Your task to perform on an android device: turn off location history Image 0: 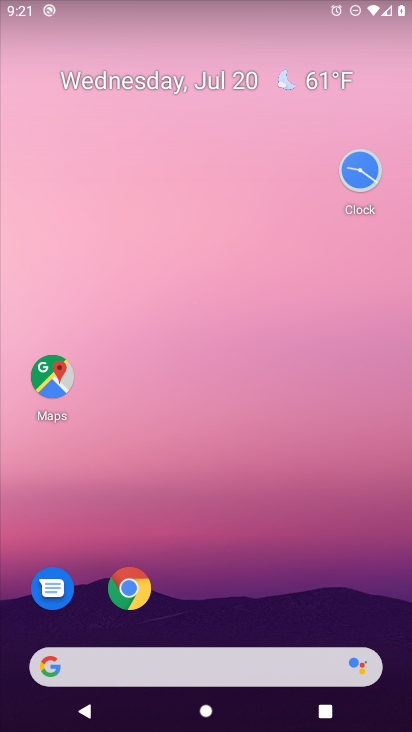
Step 0: drag from (85, 650) to (384, 96)
Your task to perform on an android device: turn off location history Image 1: 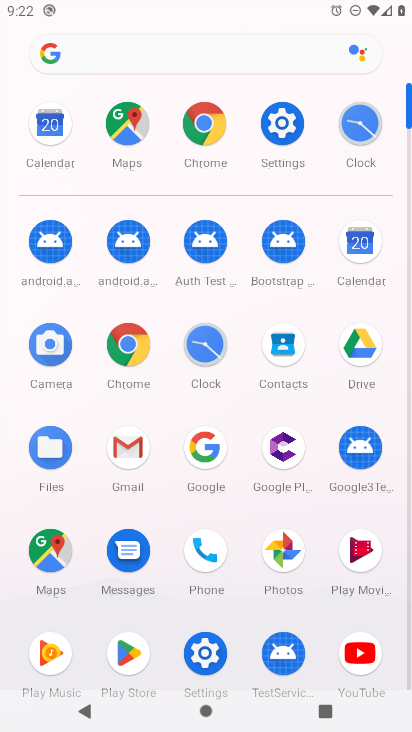
Step 1: click (191, 655)
Your task to perform on an android device: turn off location history Image 2: 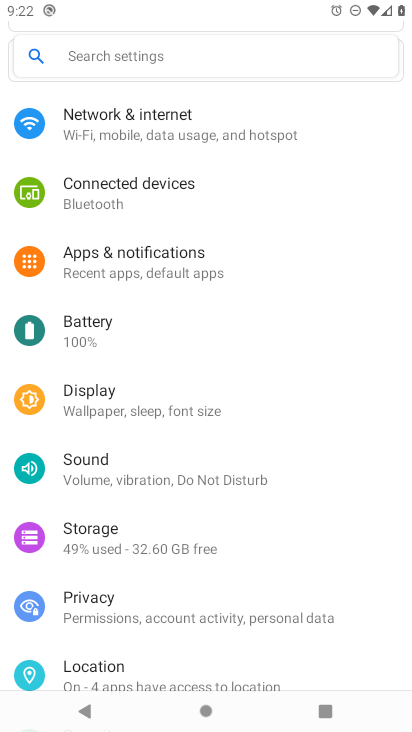
Step 2: click (104, 661)
Your task to perform on an android device: turn off location history Image 3: 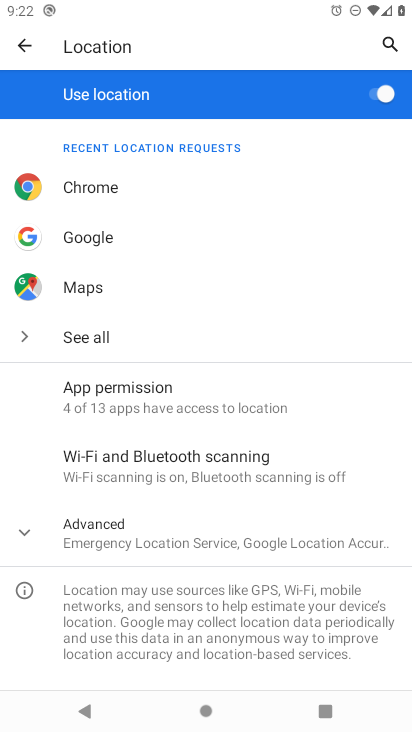
Step 3: click (115, 550)
Your task to perform on an android device: turn off location history Image 4: 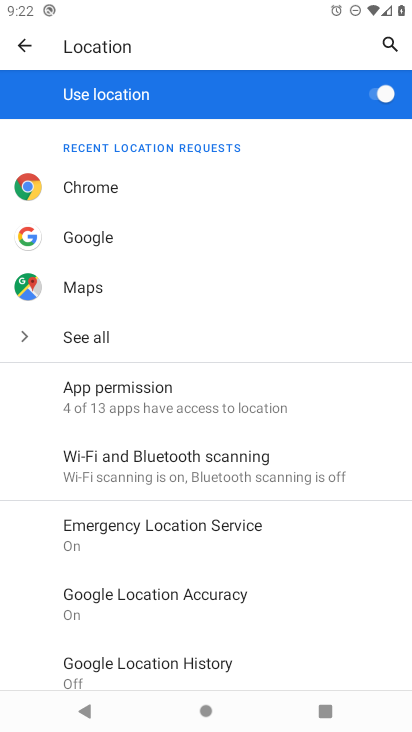
Step 4: click (143, 663)
Your task to perform on an android device: turn off location history Image 5: 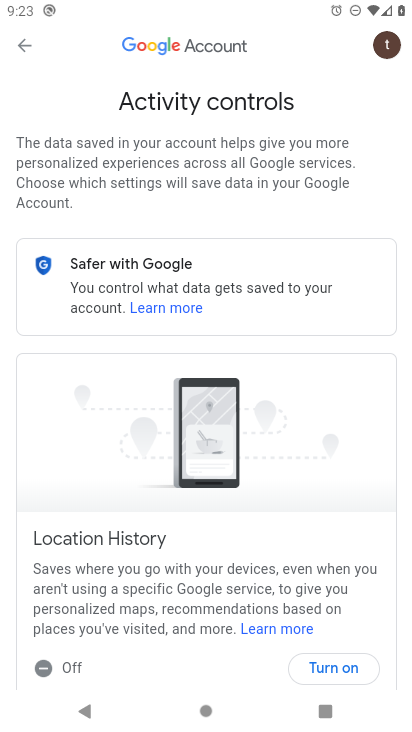
Step 5: task complete